Your task to perform on an android device: change timer sound Image 0: 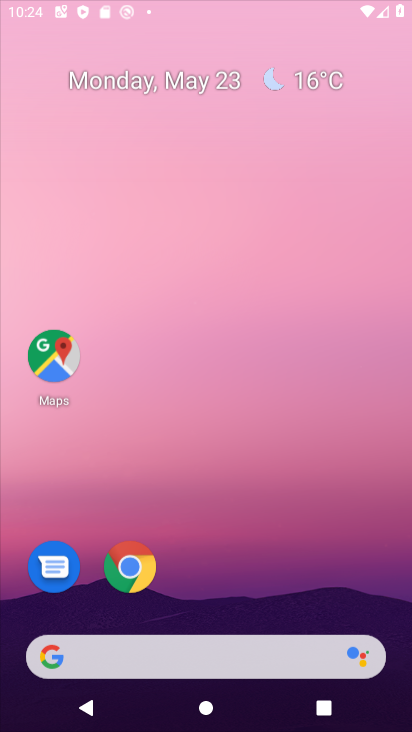
Step 0: click (401, 260)
Your task to perform on an android device: change timer sound Image 1: 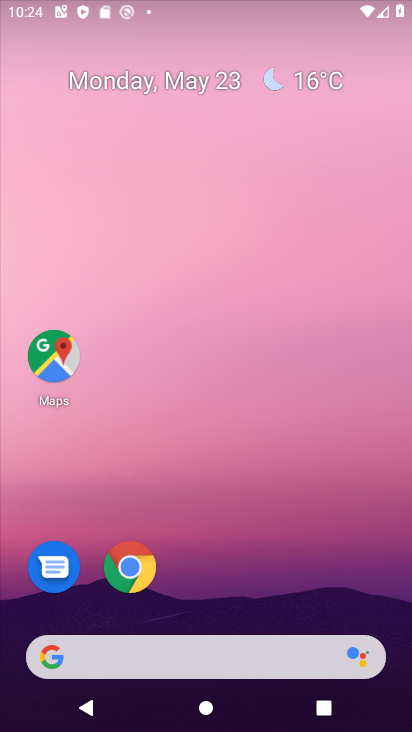
Step 1: drag from (188, 605) to (298, 31)
Your task to perform on an android device: change timer sound Image 2: 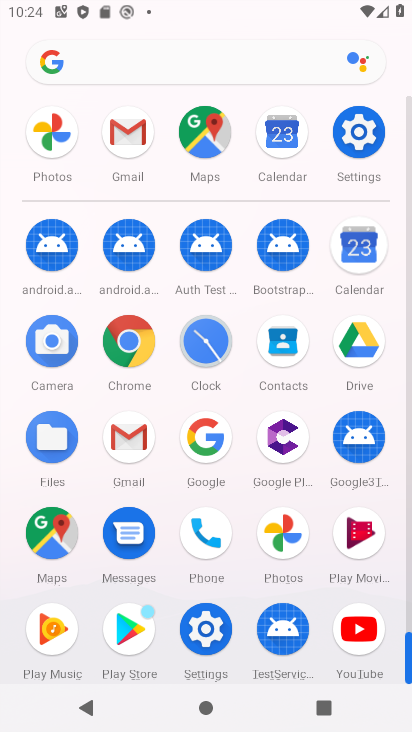
Step 2: click (216, 347)
Your task to perform on an android device: change timer sound Image 3: 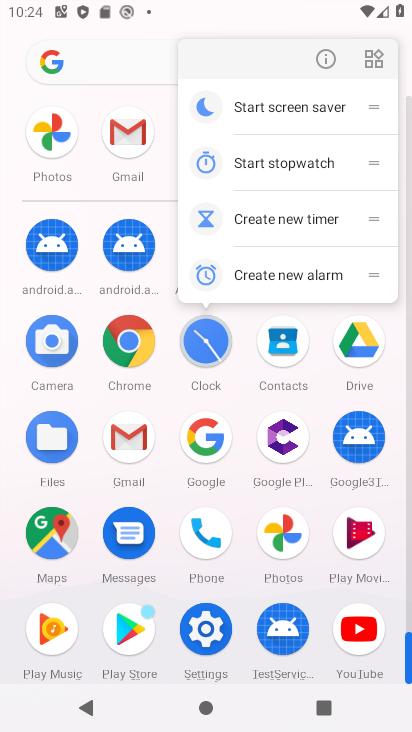
Step 3: click (325, 69)
Your task to perform on an android device: change timer sound Image 4: 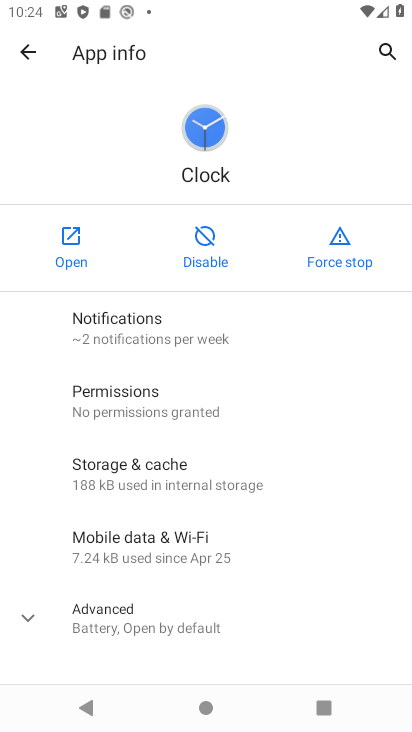
Step 4: click (70, 229)
Your task to perform on an android device: change timer sound Image 5: 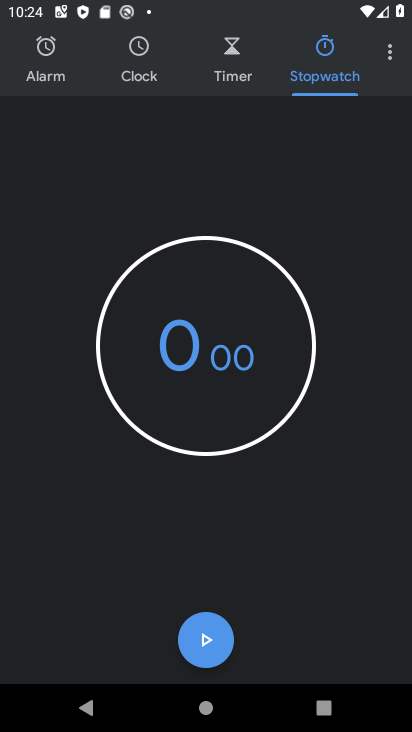
Step 5: click (228, 59)
Your task to perform on an android device: change timer sound Image 6: 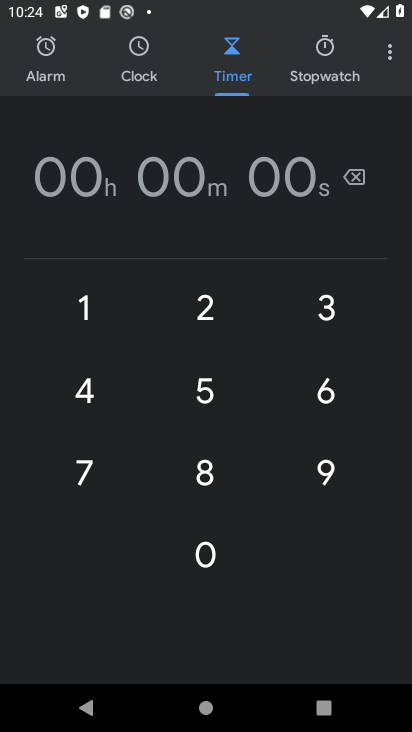
Step 6: click (392, 49)
Your task to perform on an android device: change timer sound Image 7: 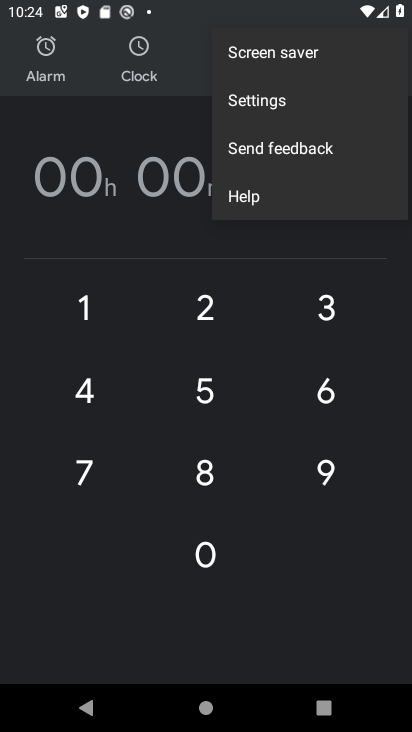
Step 7: click (261, 98)
Your task to perform on an android device: change timer sound Image 8: 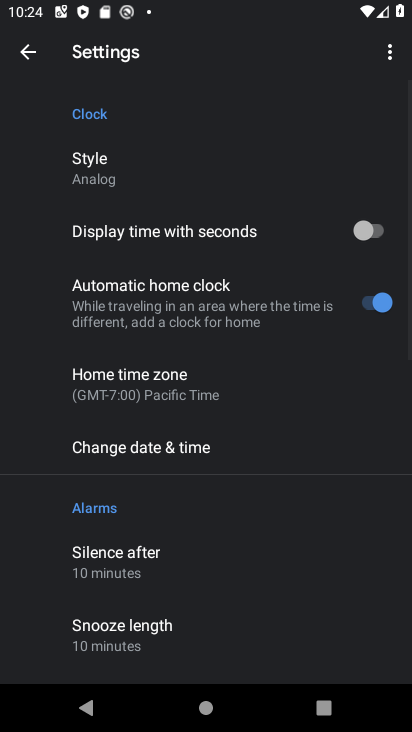
Step 8: drag from (259, 520) to (281, 73)
Your task to perform on an android device: change timer sound Image 9: 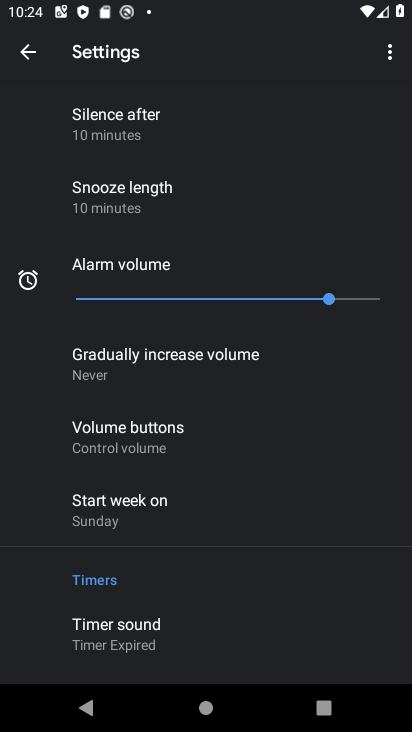
Step 9: drag from (211, 556) to (294, 96)
Your task to perform on an android device: change timer sound Image 10: 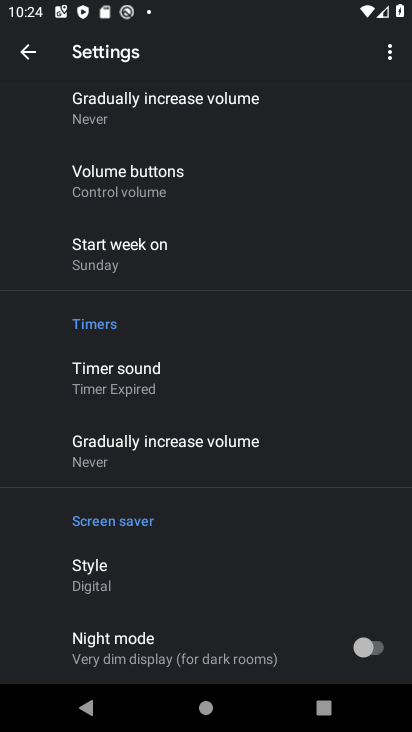
Step 10: click (148, 387)
Your task to perform on an android device: change timer sound Image 11: 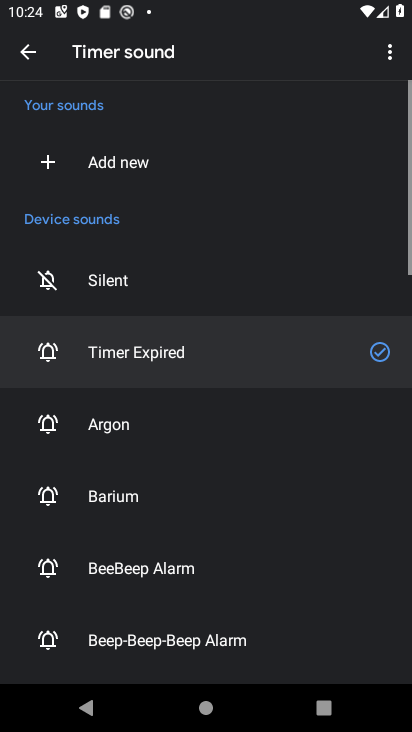
Step 11: drag from (228, 422) to (335, 46)
Your task to perform on an android device: change timer sound Image 12: 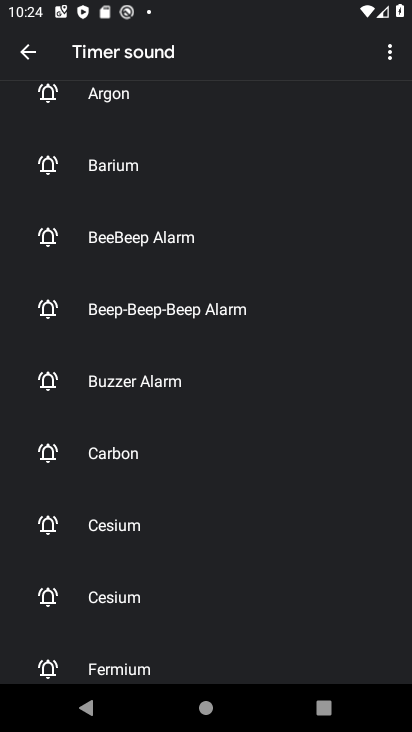
Step 12: click (213, 229)
Your task to perform on an android device: change timer sound Image 13: 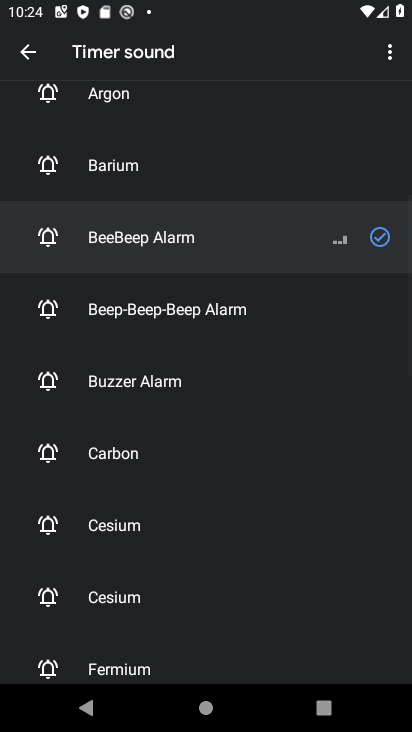
Step 13: task complete